Your task to perform on an android device: open wifi settings Image 0: 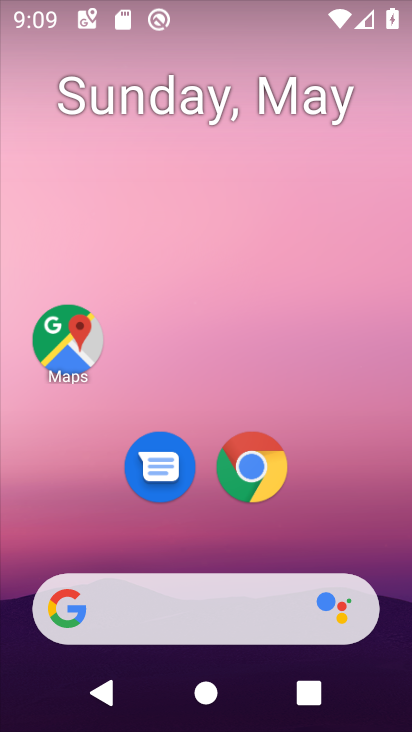
Step 0: drag from (342, 514) to (351, 92)
Your task to perform on an android device: open wifi settings Image 1: 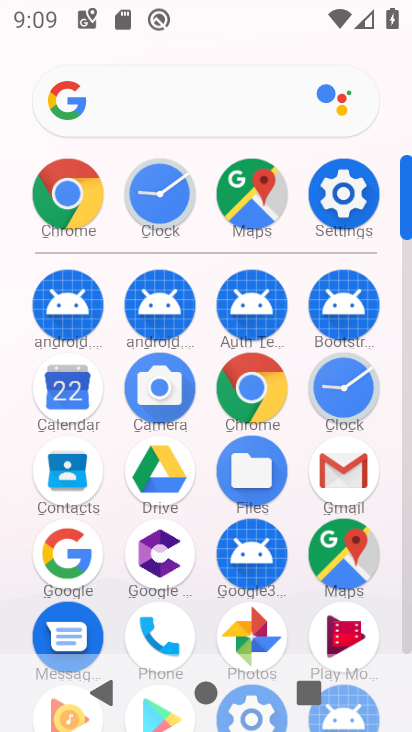
Step 1: click (351, 188)
Your task to perform on an android device: open wifi settings Image 2: 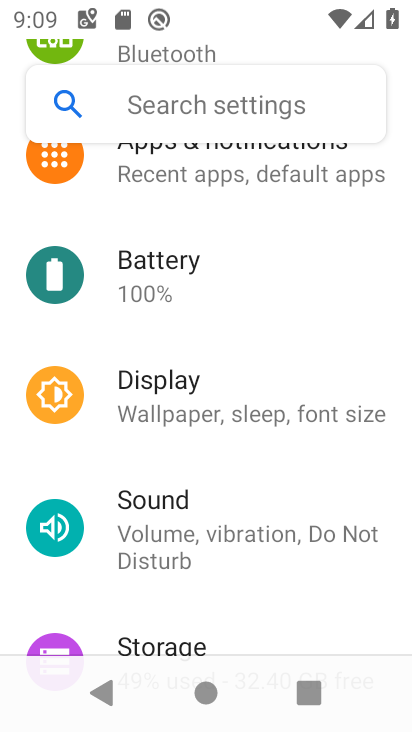
Step 2: drag from (196, 212) to (240, 556)
Your task to perform on an android device: open wifi settings Image 3: 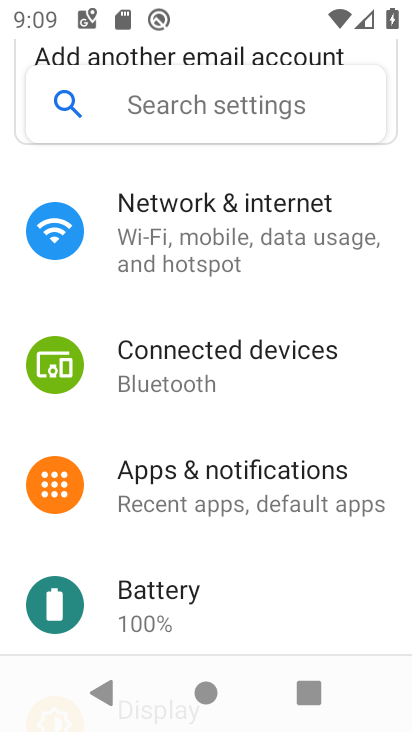
Step 3: click (191, 244)
Your task to perform on an android device: open wifi settings Image 4: 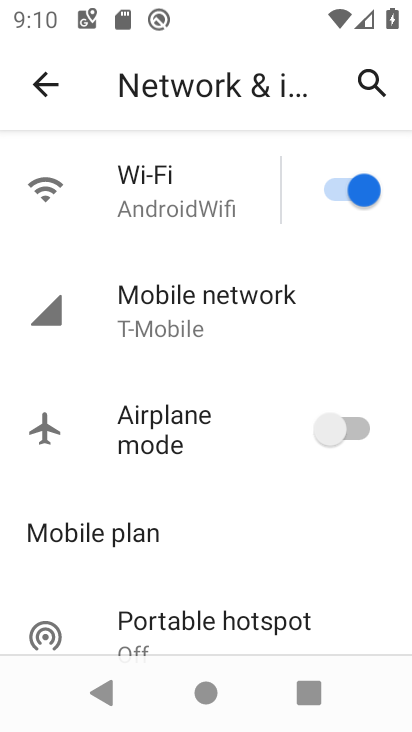
Step 4: click (223, 198)
Your task to perform on an android device: open wifi settings Image 5: 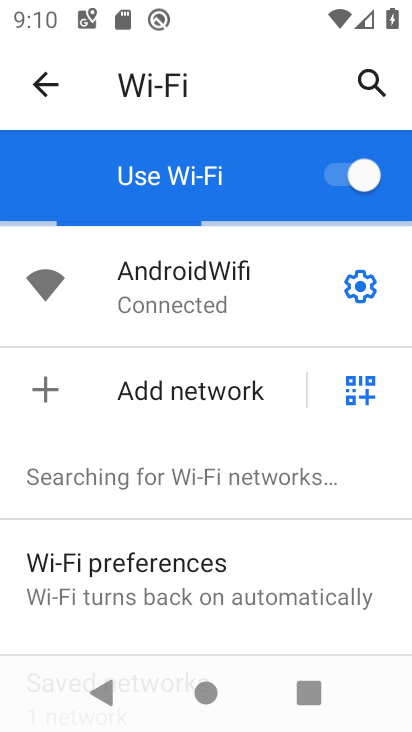
Step 5: click (347, 290)
Your task to perform on an android device: open wifi settings Image 6: 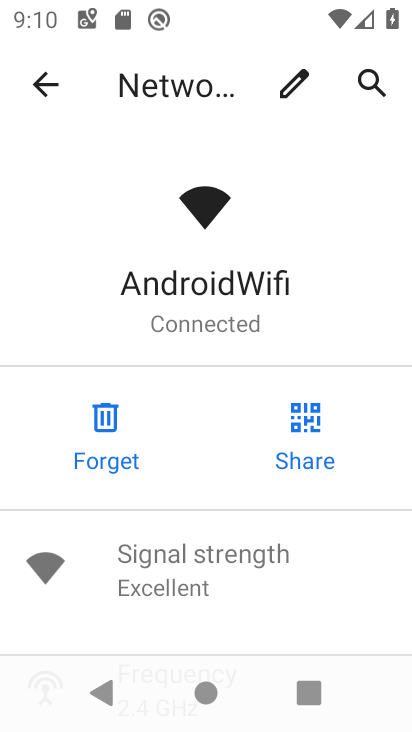
Step 6: task complete